Your task to perform on an android device: Open calendar and show me the third week of next month Image 0: 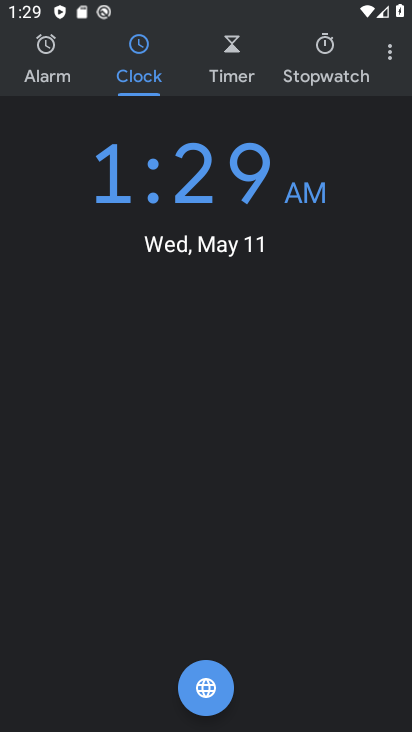
Step 0: press home button
Your task to perform on an android device: Open calendar and show me the third week of next month Image 1: 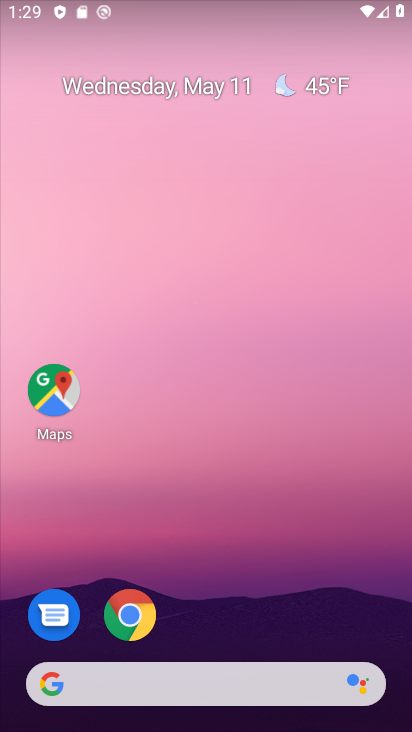
Step 1: drag from (367, 620) to (360, 228)
Your task to perform on an android device: Open calendar and show me the third week of next month Image 2: 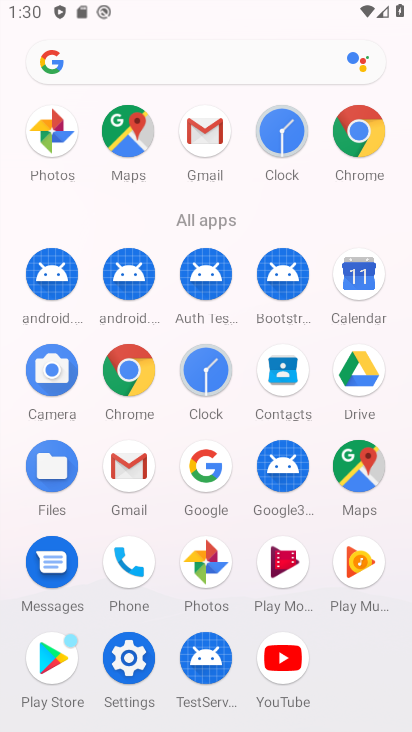
Step 2: click (357, 271)
Your task to perform on an android device: Open calendar and show me the third week of next month Image 3: 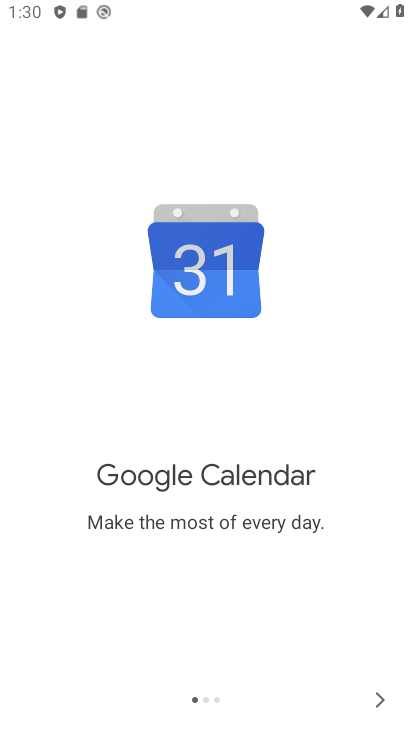
Step 3: click (384, 704)
Your task to perform on an android device: Open calendar and show me the third week of next month Image 4: 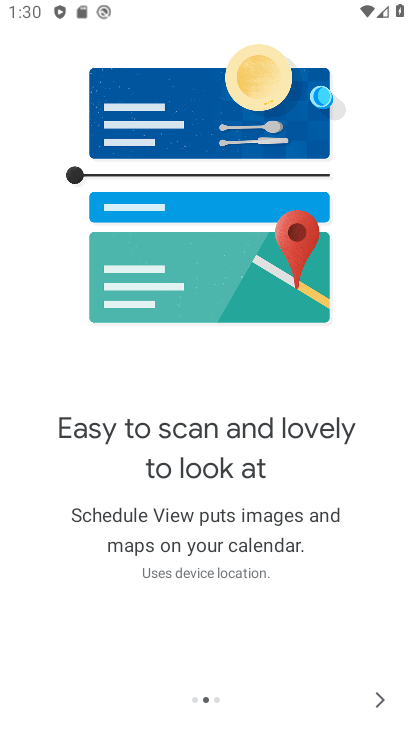
Step 4: click (384, 704)
Your task to perform on an android device: Open calendar and show me the third week of next month Image 5: 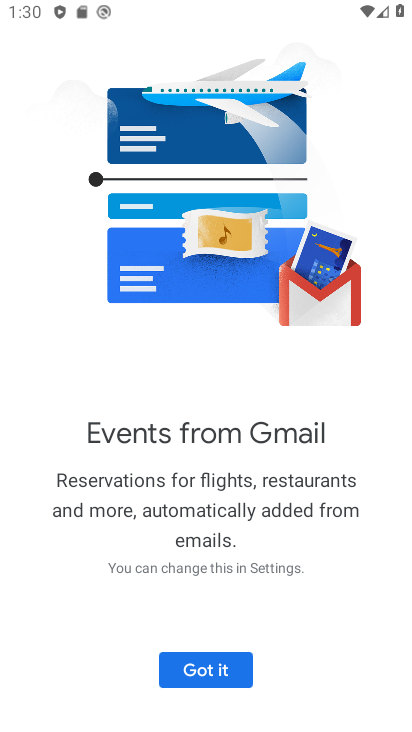
Step 5: click (233, 676)
Your task to perform on an android device: Open calendar and show me the third week of next month Image 6: 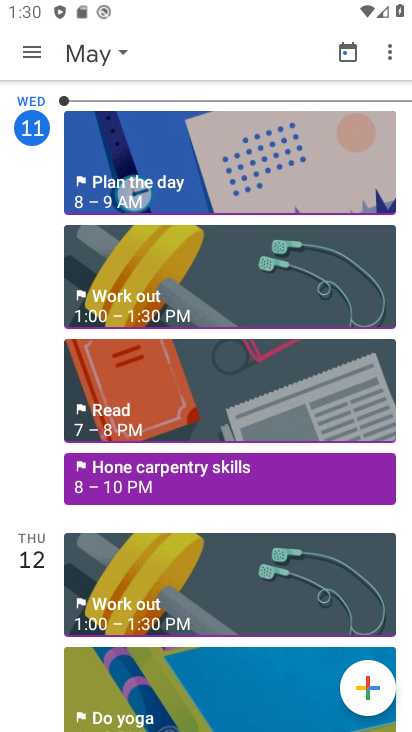
Step 6: click (97, 63)
Your task to perform on an android device: Open calendar and show me the third week of next month Image 7: 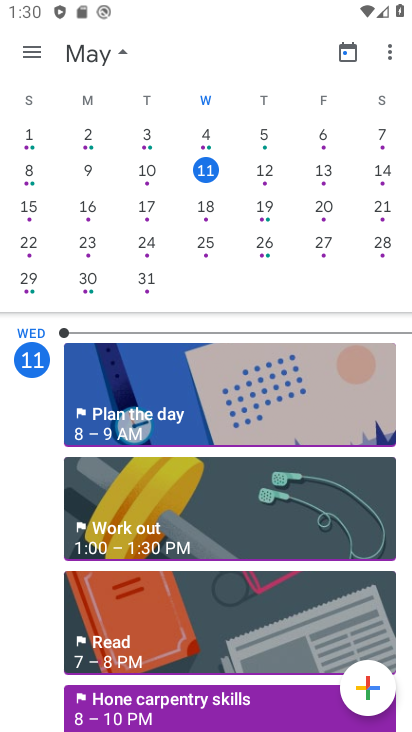
Step 7: drag from (348, 119) to (37, 114)
Your task to perform on an android device: Open calendar and show me the third week of next month Image 8: 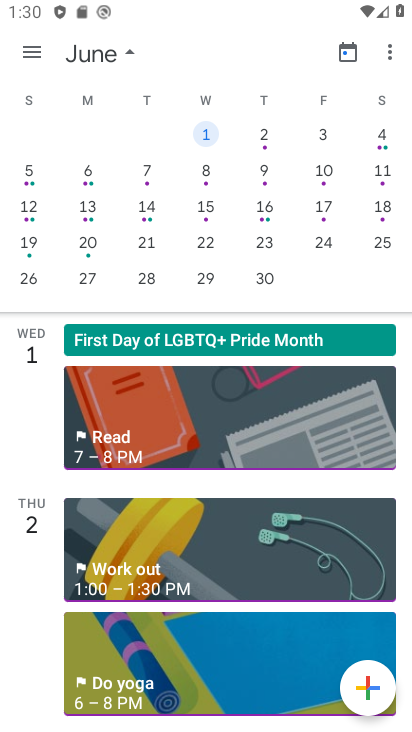
Step 8: click (30, 203)
Your task to perform on an android device: Open calendar and show me the third week of next month Image 9: 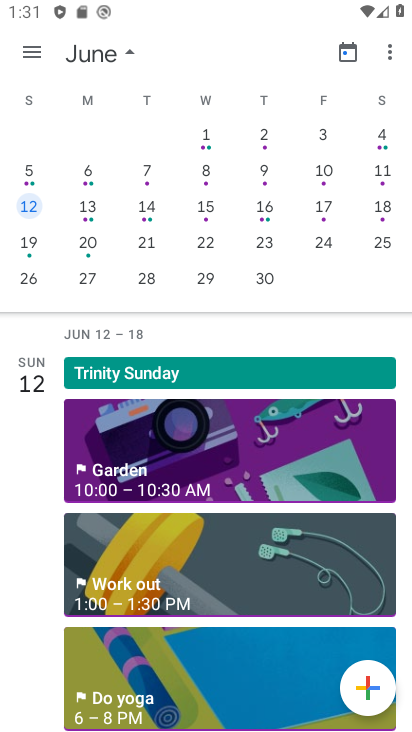
Step 9: task complete